Your task to perform on an android device: Go to CNN.com Image 0: 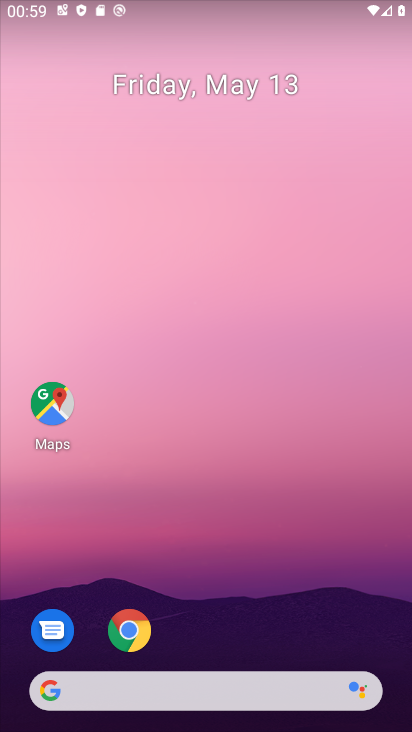
Step 0: drag from (257, 711) to (388, 131)
Your task to perform on an android device: Go to CNN.com Image 1: 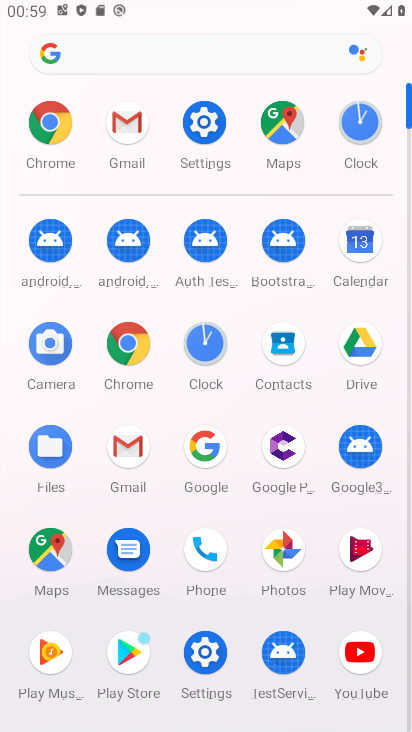
Step 1: click (134, 363)
Your task to perform on an android device: Go to CNN.com Image 2: 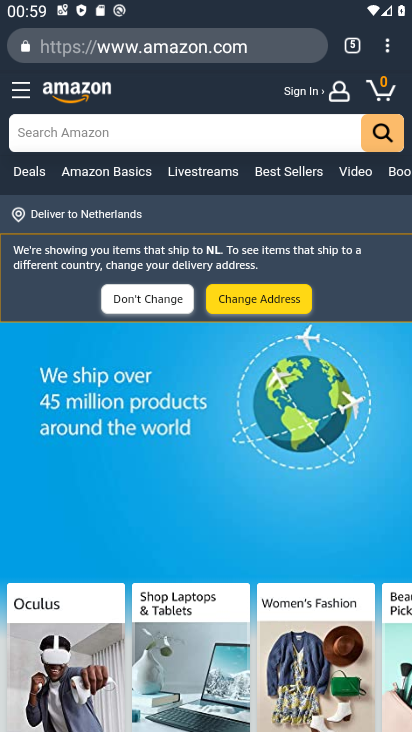
Step 2: click (191, 33)
Your task to perform on an android device: Go to CNN.com Image 3: 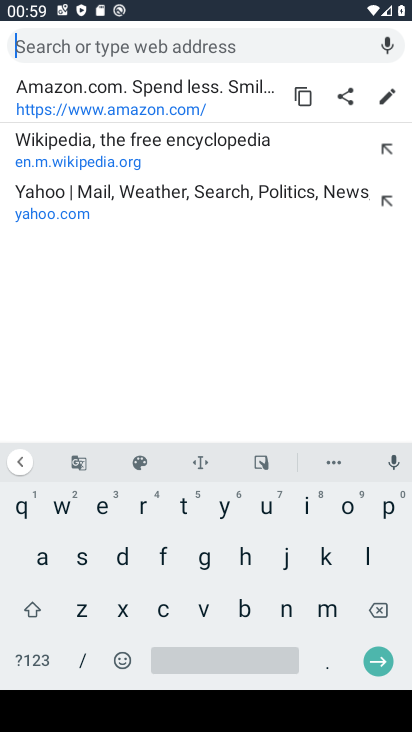
Step 3: click (162, 616)
Your task to perform on an android device: Go to CNN.com Image 4: 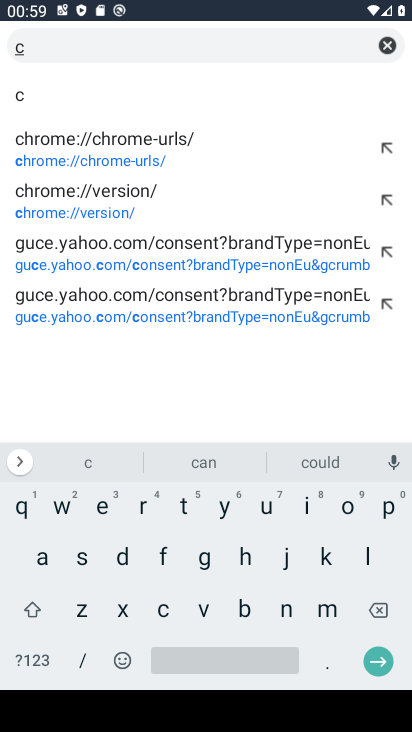
Step 4: click (283, 609)
Your task to perform on an android device: Go to CNN.com Image 5: 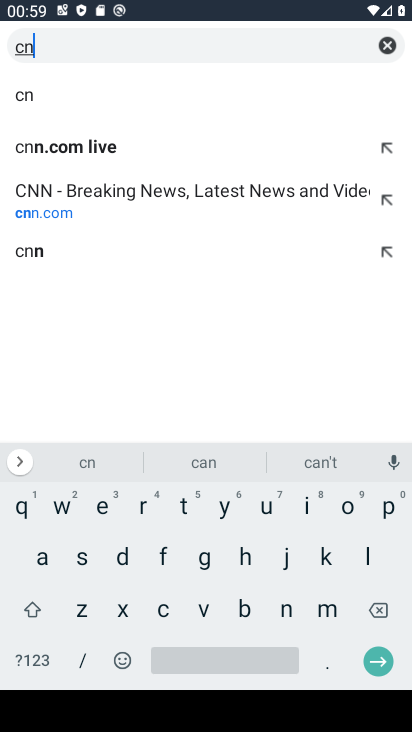
Step 5: click (286, 604)
Your task to perform on an android device: Go to CNN.com Image 6: 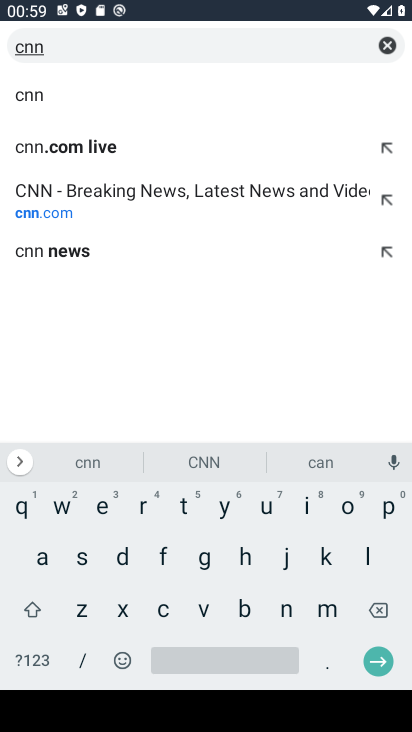
Step 6: click (380, 661)
Your task to perform on an android device: Go to CNN.com Image 7: 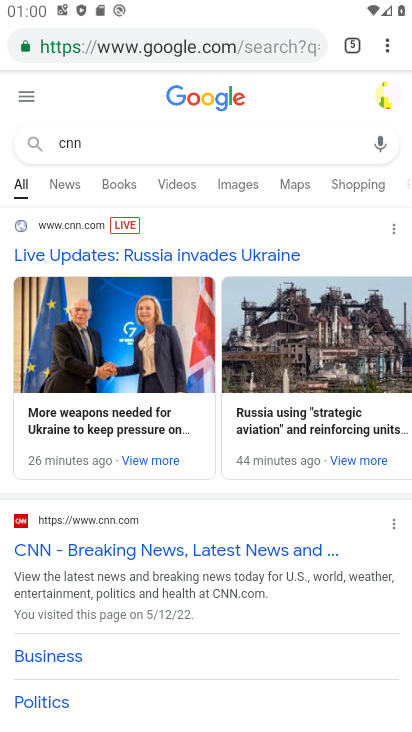
Step 7: click (50, 556)
Your task to perform on an android device: Go to CNN.com Image 8: 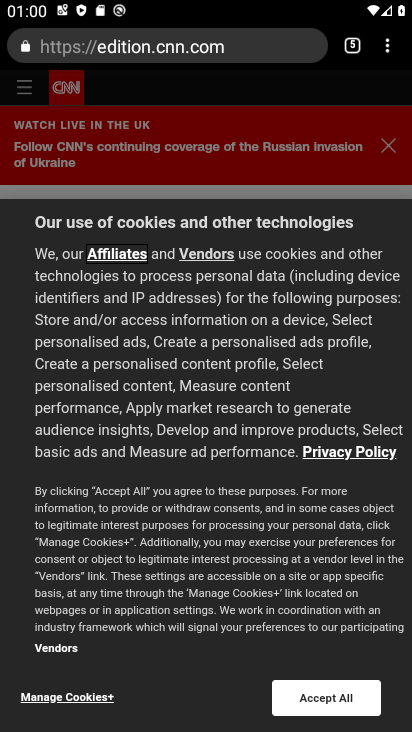
Step 8: task complete